Your task to perform on an android device: Open ESPN.com Image 0: 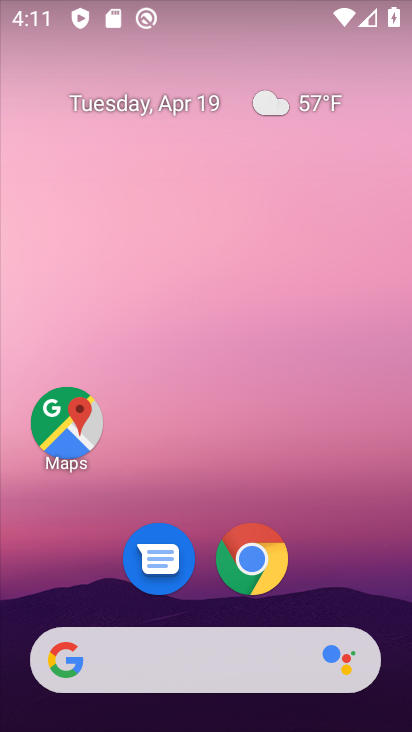
Step 0: click (264, 561)
Your task to perform on an android device: Open ESPN.com Image 1: 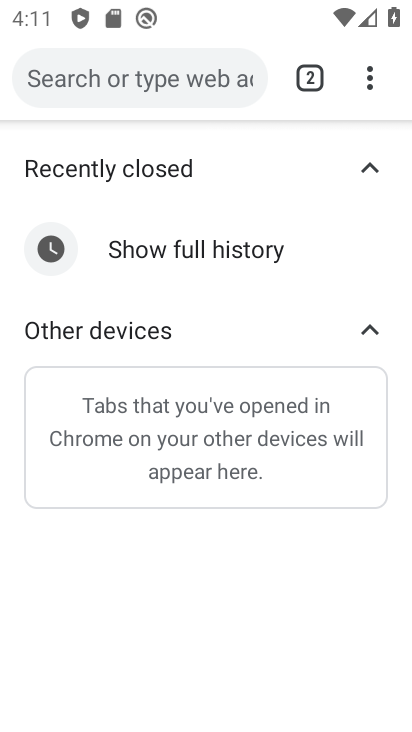
Step 1: click (91, 79)
Your task to perform on an android device: Open ESPN.com Image 2: 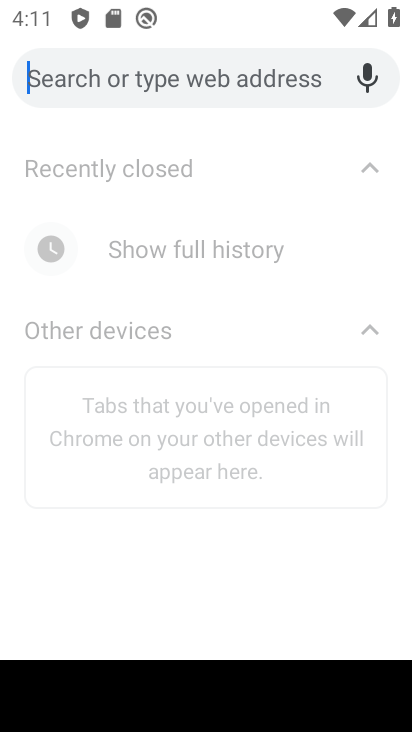
Step 2: type "ESPN"
Your task to perform on an android device: Open ESPN.com Image 3: 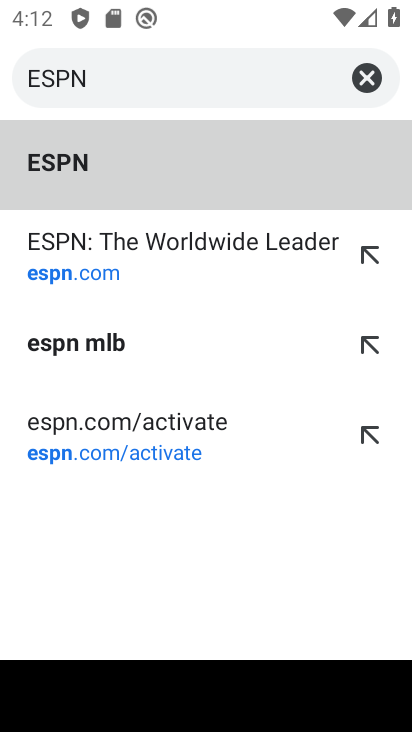
Step 3: click (101, 248)
Your task to perform on an android device: Open ESPN.com Image 4: 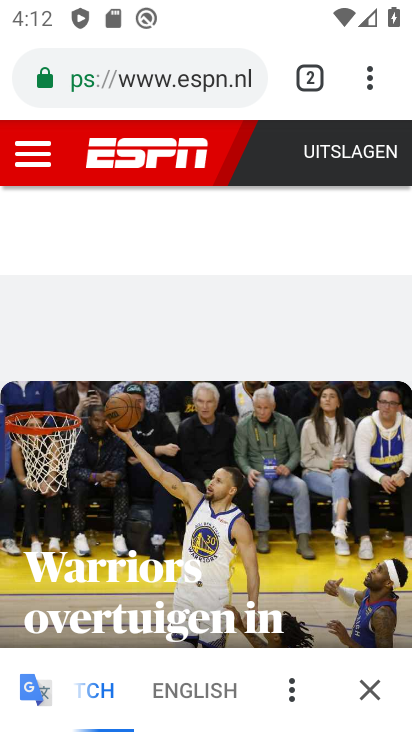
Step 4: task complete